Your task to perform on an android device: change the clock style Image 0: 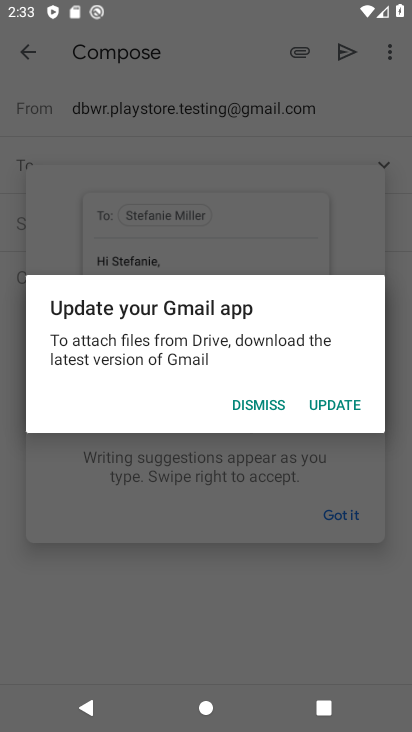
Step 0: press home button
Your task to perform on an android device: change the clock style Image 1: 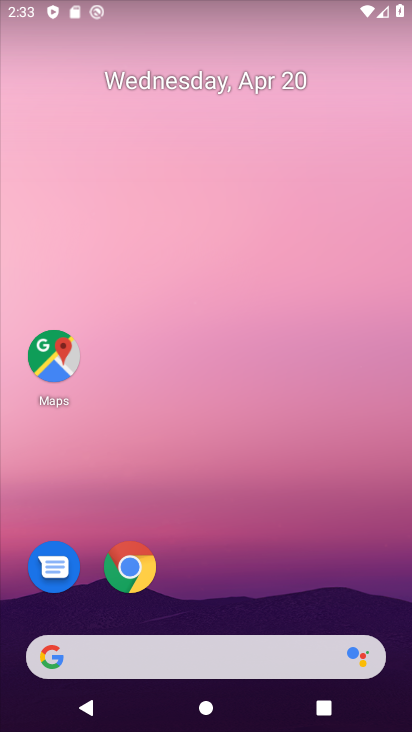
Step 1: drag from (211, 572) to (332, 6)
Your task to perform on an android device: change the clock style Image 2: 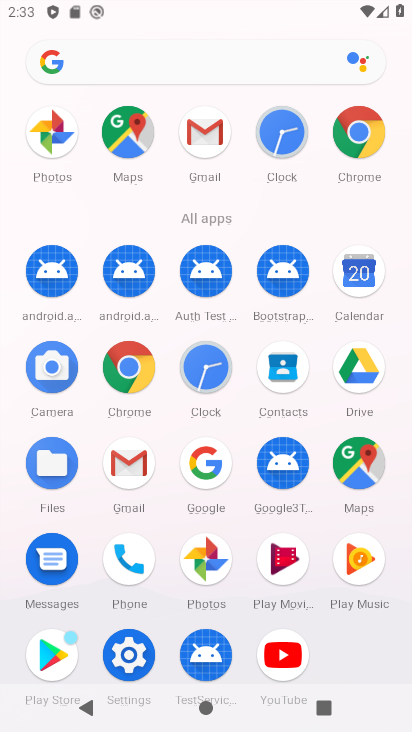
Step 2: click (292, 130)
Your task to perform on an android device: change the clock style Image 3: 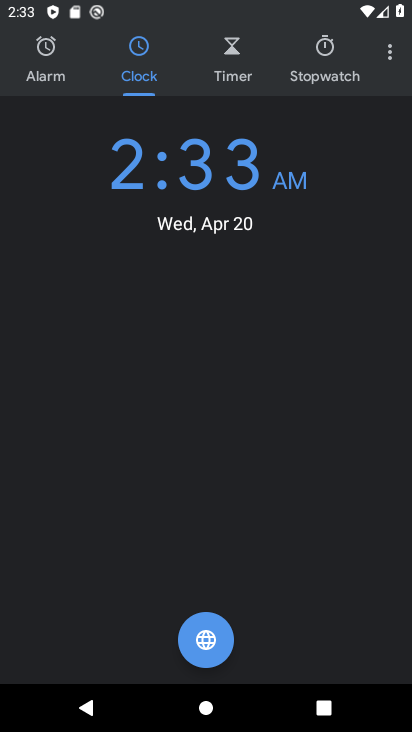
Step 3: click (387, 59)
Your task to perform on an android device: change the clock style Image 4: 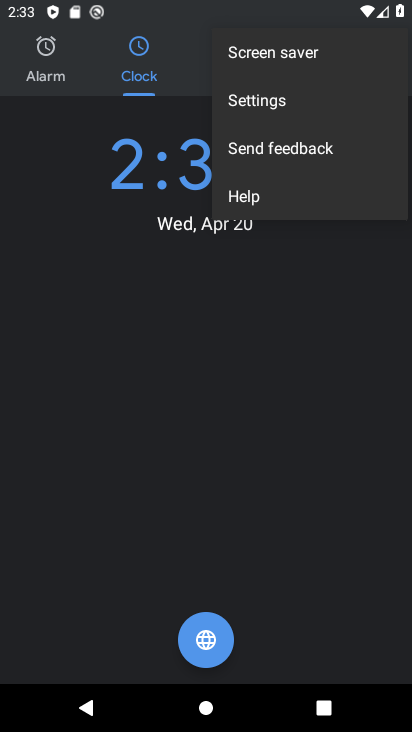
Step 4: click (275, 106)
Your task to perform on an android device: change the clock style Image 5: 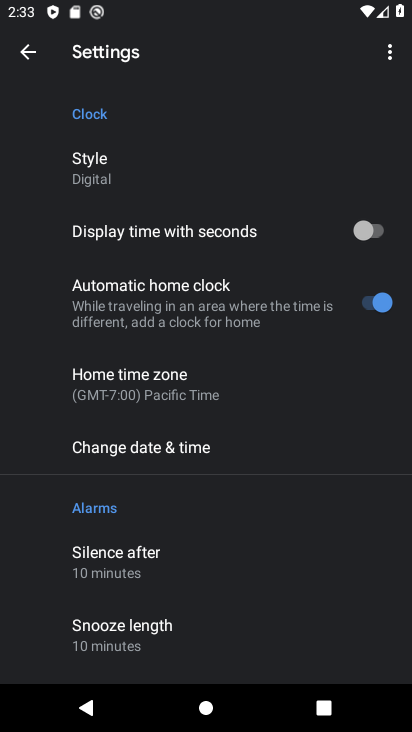
Step 5: click (130, 165)
Your task to perform on an android device: change the clock style Image 6: 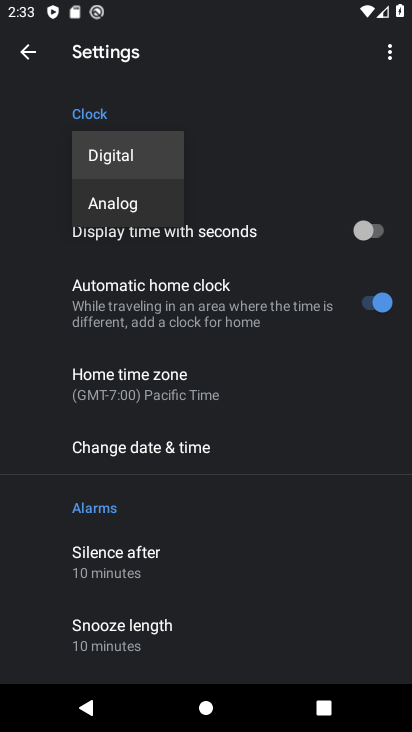
Step 6: click (143, 207)
Your task to perform on an android device: change the clock style Image 7: 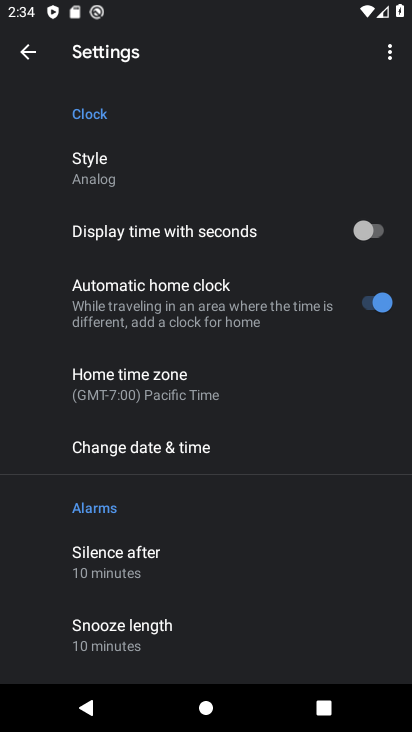
Step 7: task complete